Your task to perform on an android device: Set the phone to "Do not disturb". Image 0: 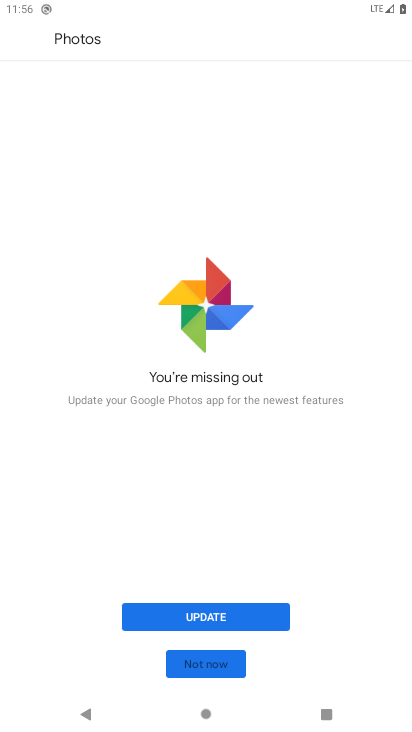
Step 0: press home button
Your task to perform on an android device: Set the phone to "Do not disturb". Image 1: 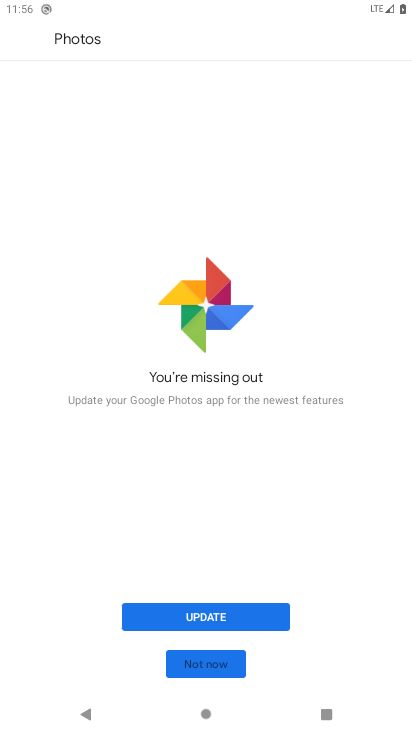
Step 1: press home button
Your task to perform on an android device: Set the phone to "Do not disturb". Image 2: 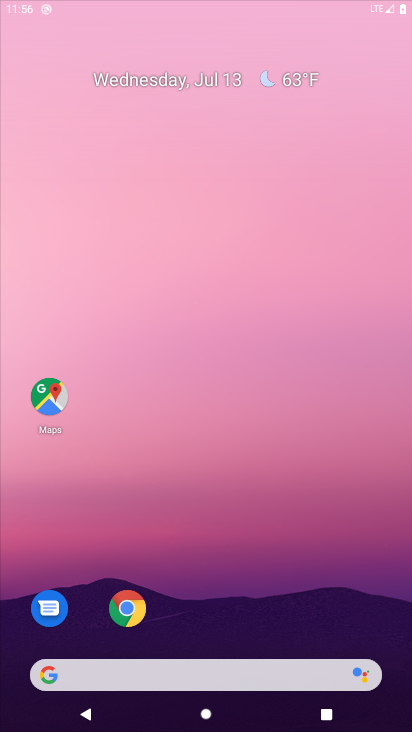
Step 2: press home button
Your task to perform on an android device: Set the phone to "Do not disturb". Image 3: 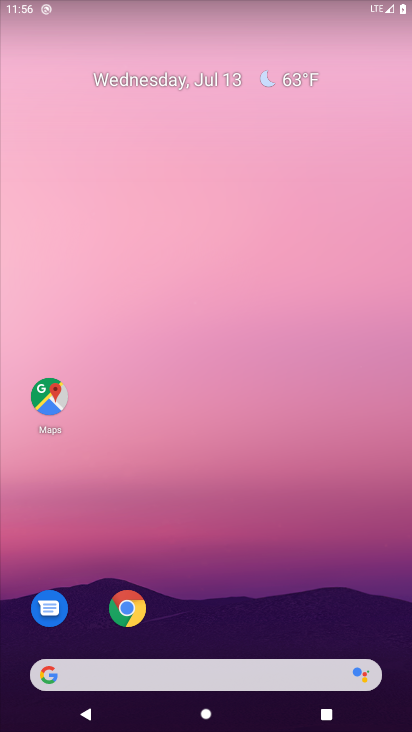
Step 3: press home button
Your task to perform on an android device: Set the phone to "Do not disturb". Image 4: 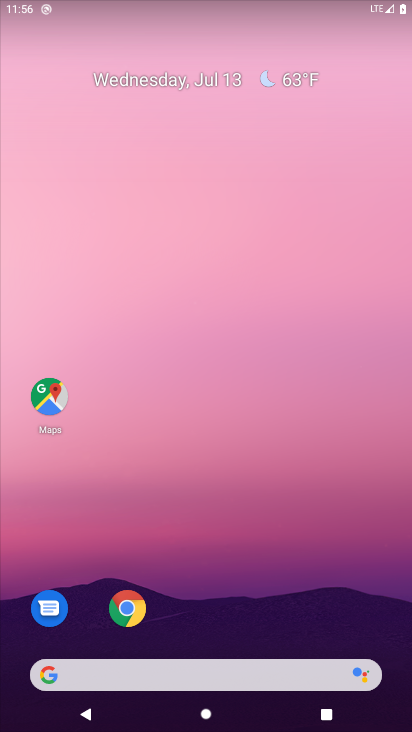
Step 4: click (256, 608)
Your task to perform on an android device: Set the phone to "Do not disturb". Image 5: 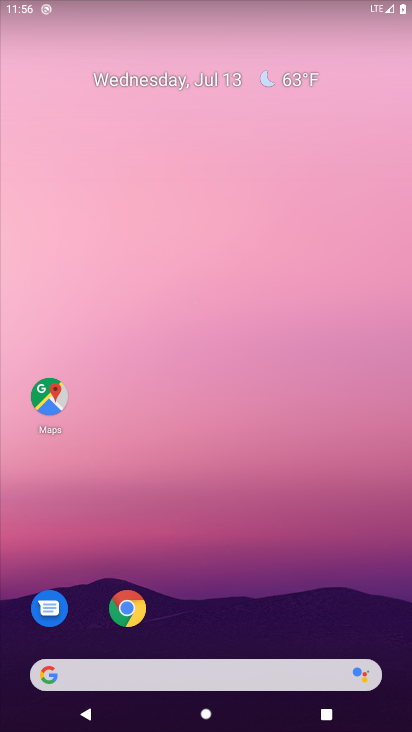
Step 5: drag from (213, 8) to (202, 380)
Your task to perform on an android device: Set the phone to "Do not disturb". Image 6: 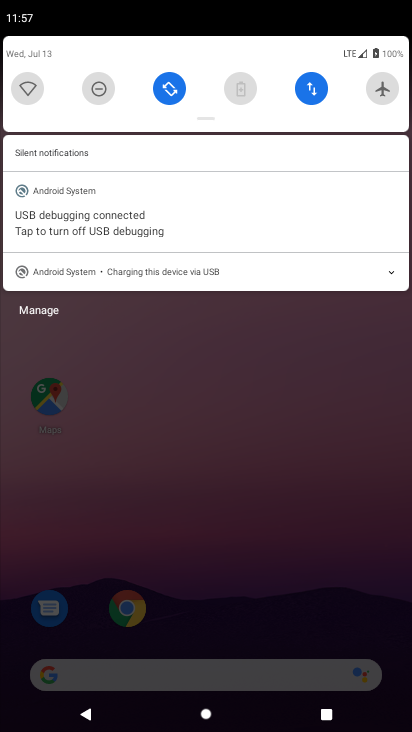
Step 6: click (95, 95)
Your task to perform on an android device: Set the phone to "Do not disturb". Image 7: 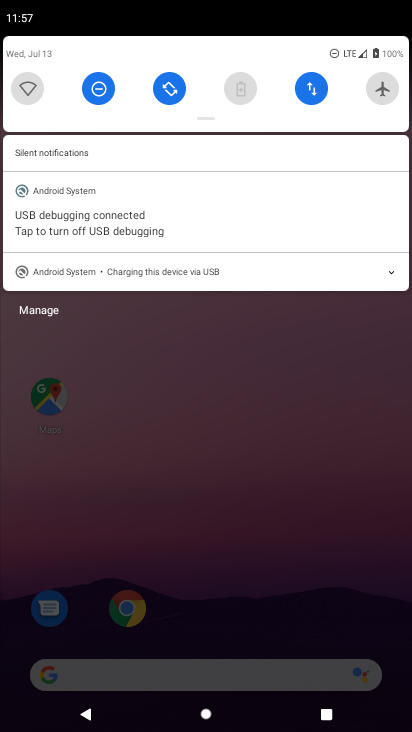
Step 7: task complete